Your task to perform on an android device: turn on notifications settings in the gmail app Image 0: 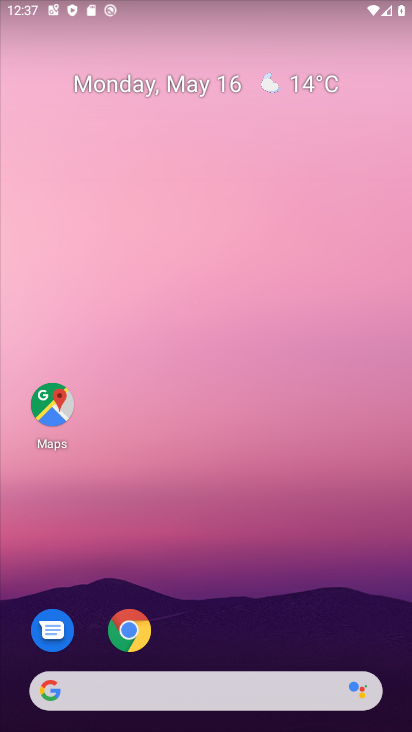
Step 0: drag from (266, 652) to (238, 219)
Your task to perform on an android device: turn on notifications settings in the gmail app Image 1: 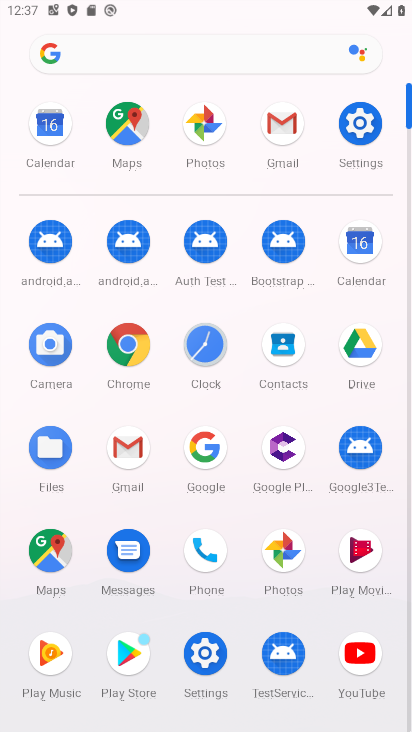
Step 1: click (272, 121)
Your task to perform on an android device: turn on notifications settings in the gmail app Image 2: 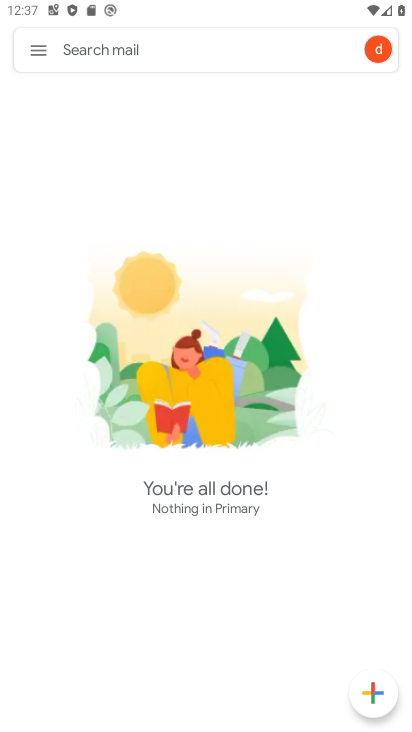
Step 2: click (38, 44)
Your task to perform on an android device: turn on notifications settings in the gmail app Image 3: 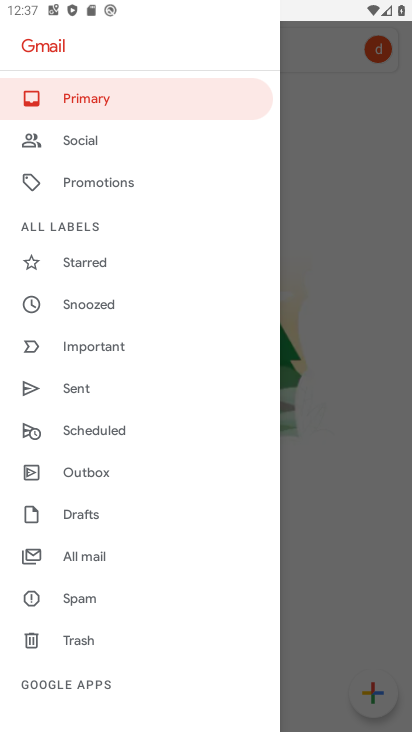
Step 3: drag from (104, 616) to (115, 295)
Your task to perform on an android device: turn on notifications settings in the gmail app Image 4: 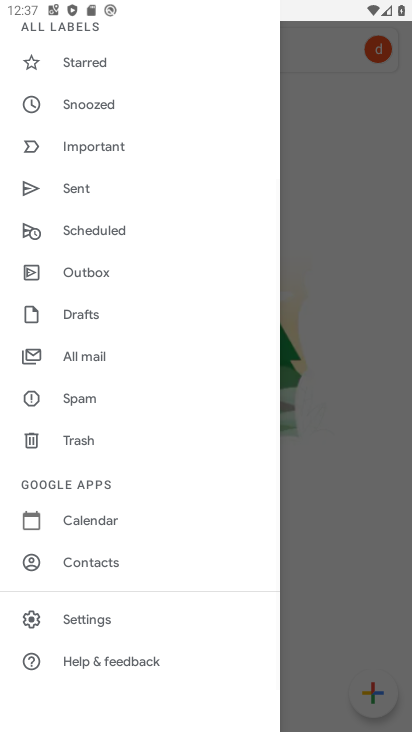
Step 4: click (93, 609)
Your task to perform on an android device: turn on notifications settings in the gmail app Image 5: 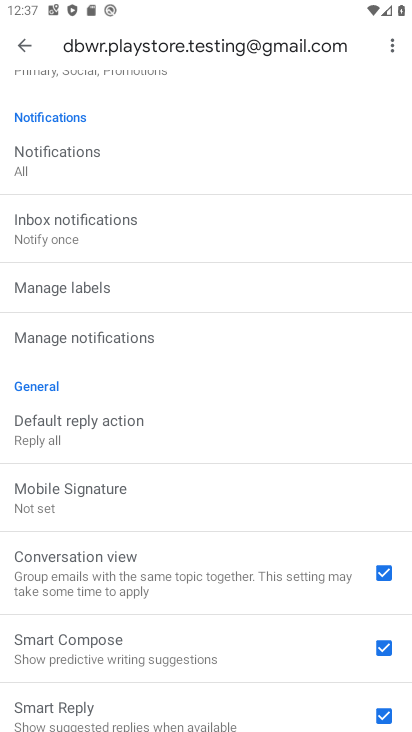
Step 5: click (84, 345)
Your task to perform on an android device: turn on notifications settings in the gmail app Image 6: 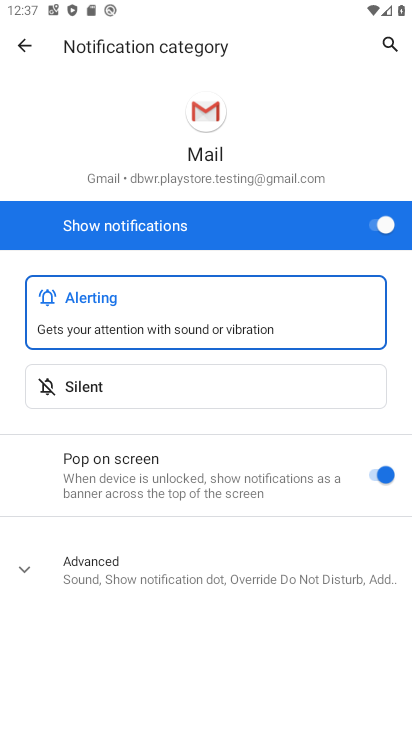
Step 6: task complete